Your task to perform on an android device: visit the assistant section in the google photos Image 0: 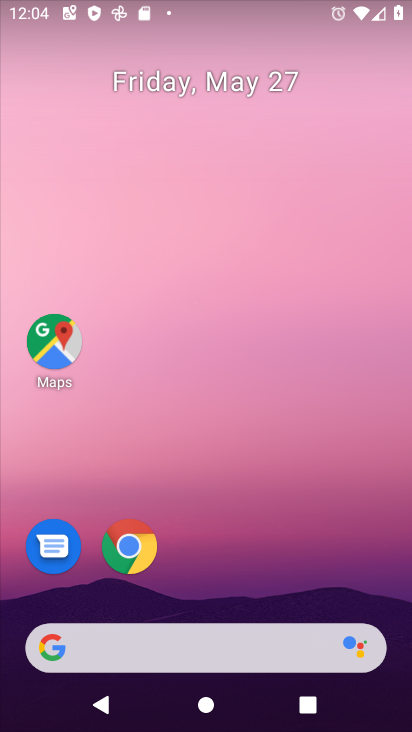
Step 0: drag from (175, 509) to (182, 102)
Your task to perform on an android device: visit the assistant section in the google photos Image 1: 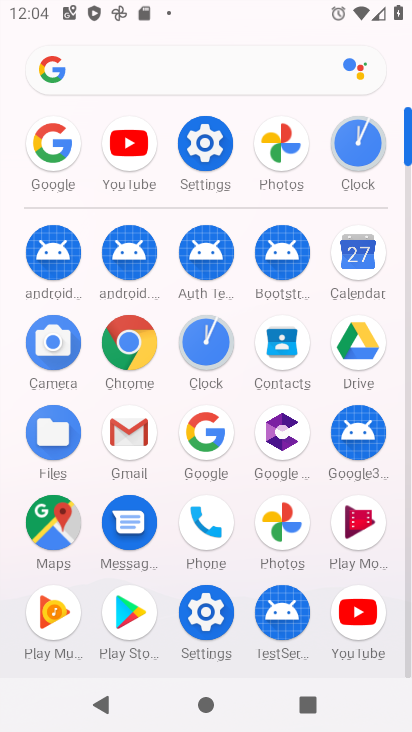
Step 1: click (287, 141)
Your task to perform on an android device: visit the assistant section in the google photos Image 2: 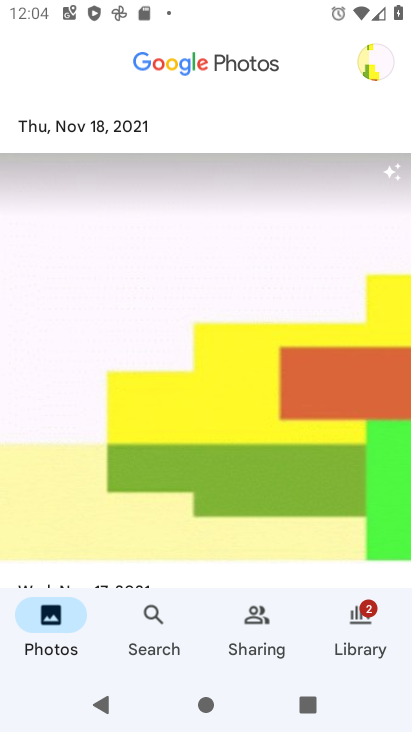
Step 2: click (258, 615)
Your task to perform on an android device: visit the assistant section in the google photos Image 3: 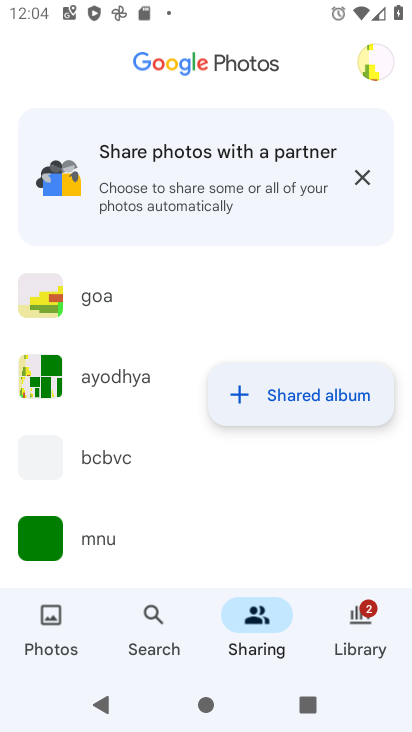
Step 3: click (180, 648)
Your task to perform on an android device: visit the assistant section in the google photos Image 4: 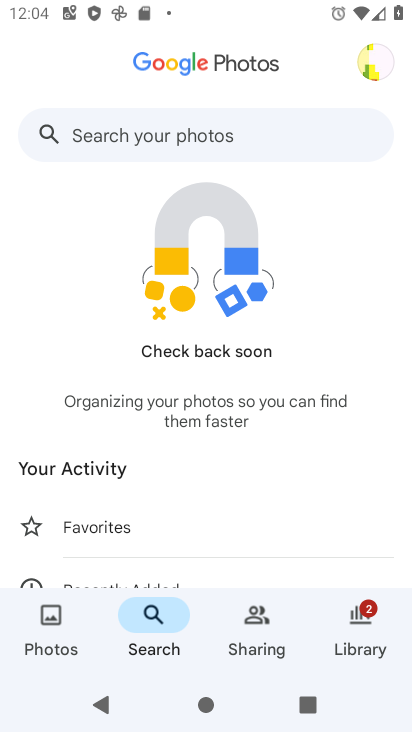
Step 4: task complete